Your task to perform on an android device: Do I have any events tomorrow? Image 0: 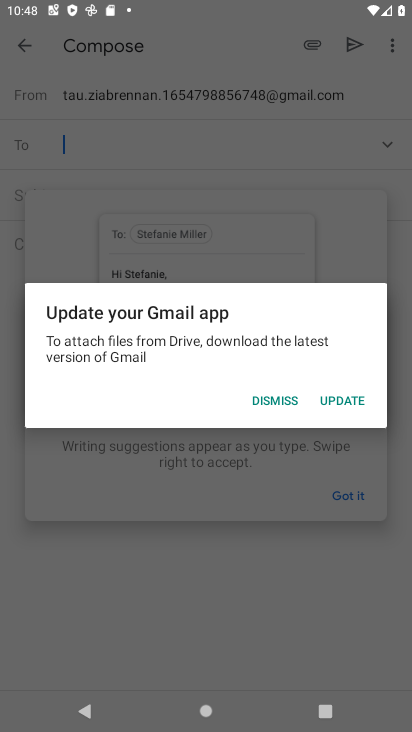
Step 0: click (269, 398)
Your task to perform on an android device: Do I have any events tomorrow? Image 1: 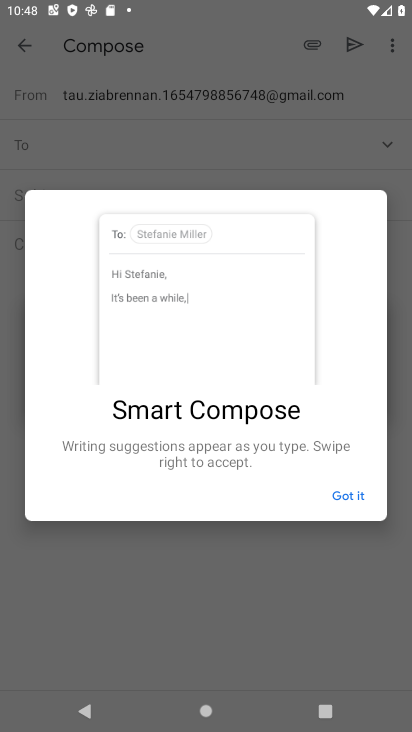
Step 1: click (352, 488)
Your task to perform on an android device: Do I have any events tomorrow? Image 2: 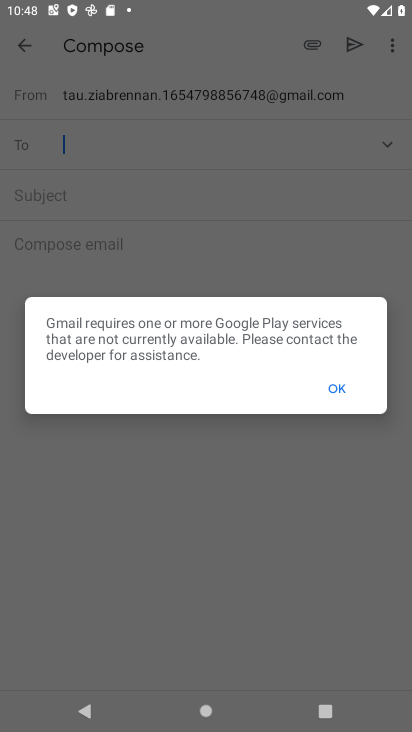
Step 2: click (340, 393)
Your task to perform on an android device: Do I have any events tomorrow? Image 3: 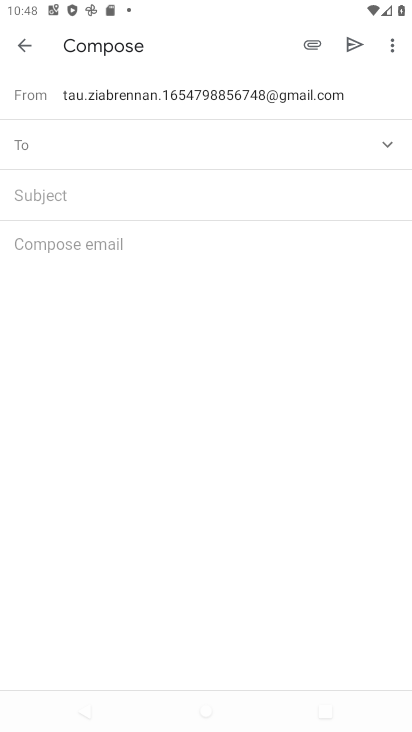
Step 3: press home button
Your task to perform on an android device: Do I have any events tomorrow? Image 4: 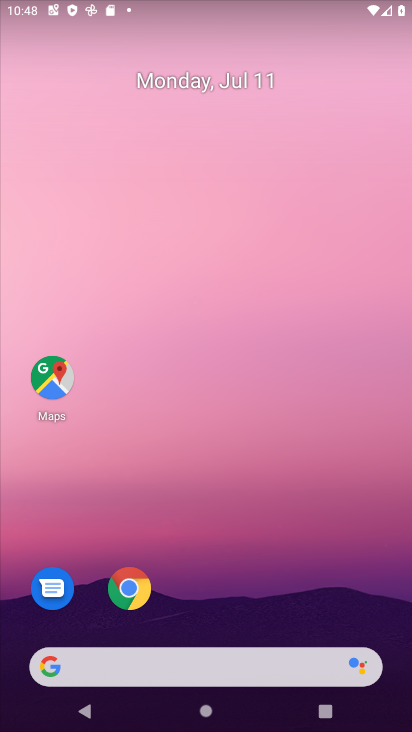
Step 4: drag from (262, 701) to (377, 117)
Your task to perform on an android device: Do I have any events tomorrow? Image 5: 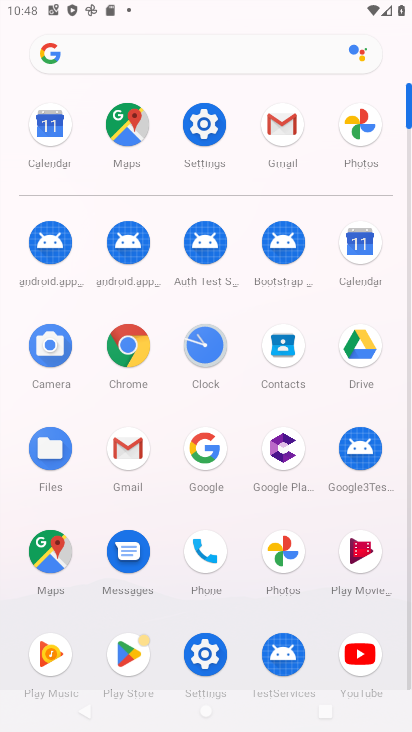
Step 5: click (357, 250)
Your task to perform on an android device: Do I have any events tomorrow? Image 6: 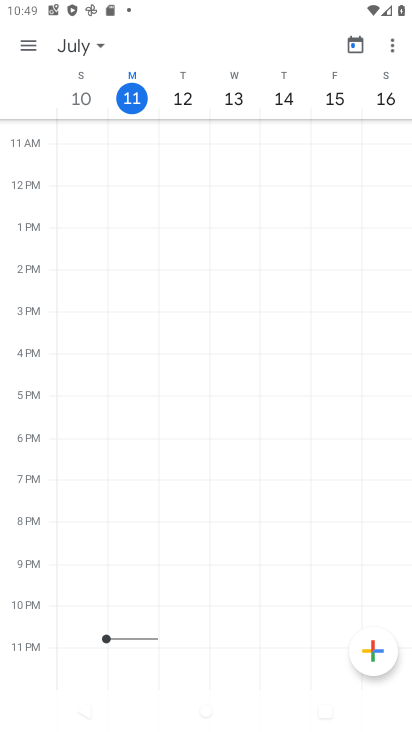
Step 6: drag from (250, 632) to (225, 59)
Your task to perform on an android device: Do I have any events tomorrow? Image 7: 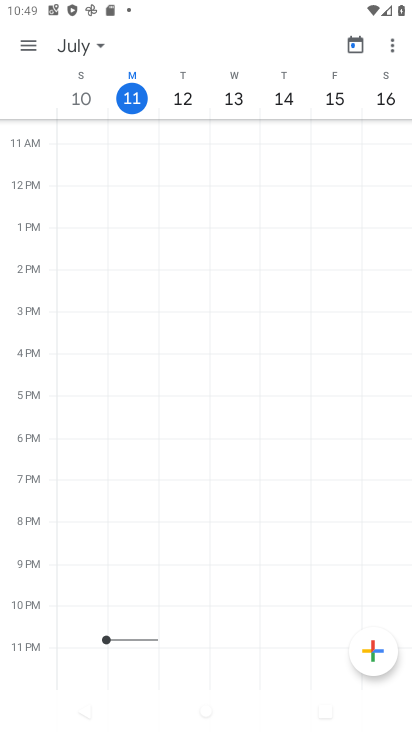
Step 7: click (24, 43)
Your task to perform on an android device: Do I have any events tomorrow? Image 8: 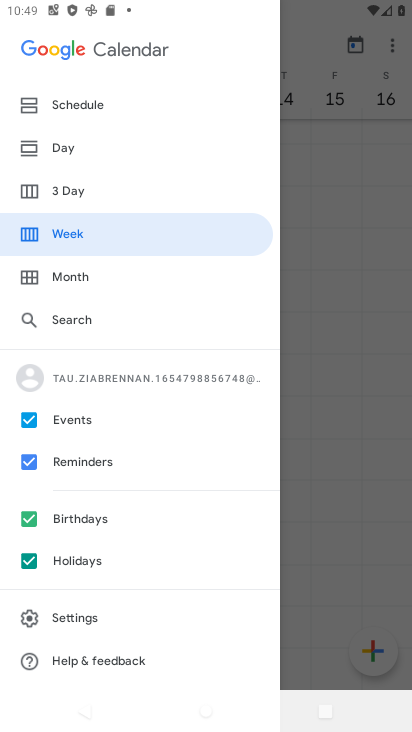
Step 8: click (126, 99)
Your task to perform on an android device: Do I have any events tomorrow? Image 9: 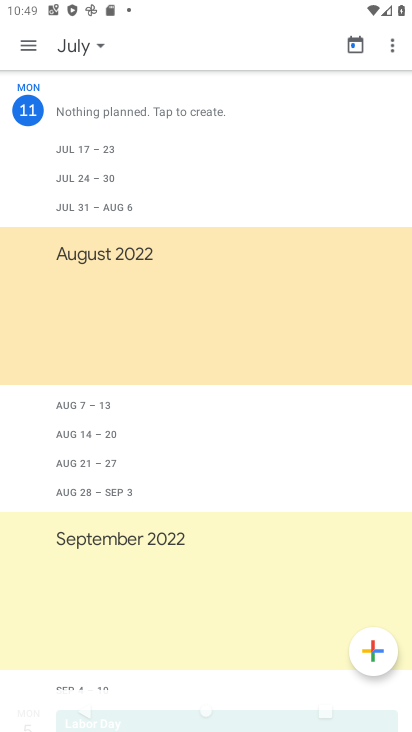
Step 9: click (114, 108)
Your task to perform on an android device: Do I have any events tomorrow? Image 10: 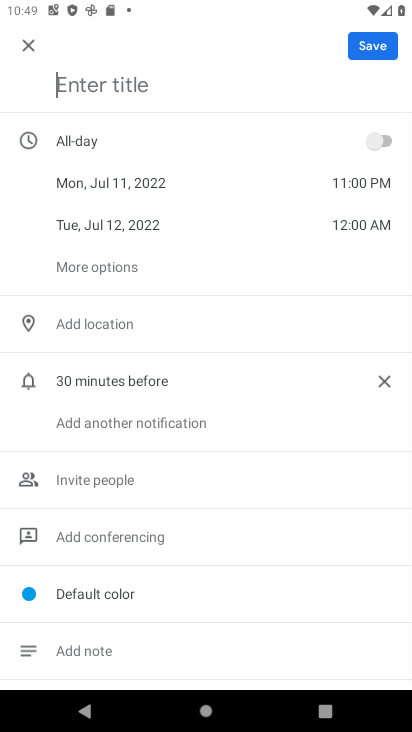
Step 10: task complete